Your task to perform on an android device: Go to Android settings Image 0: 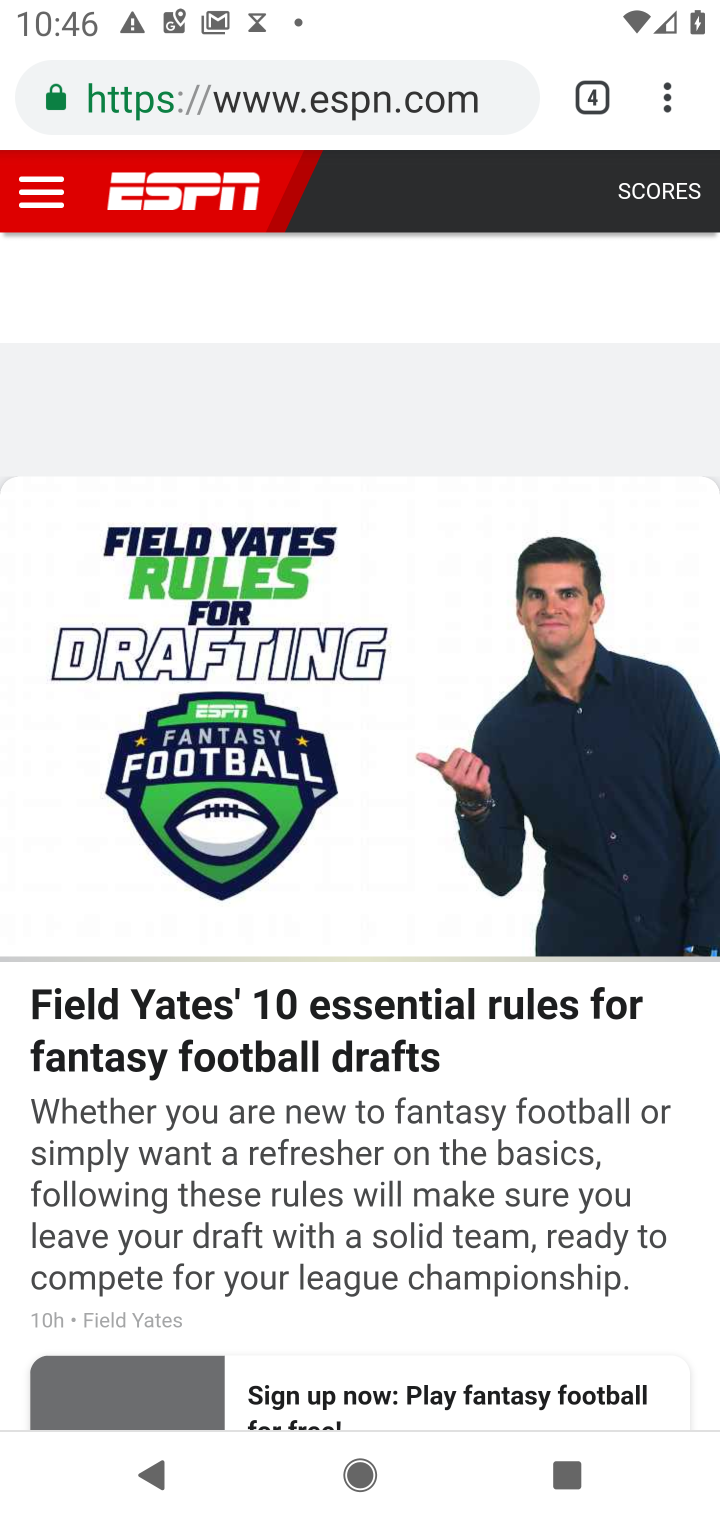
Step 0: press home button
Your task to perform on an android device: Go to Android settings Image 1: 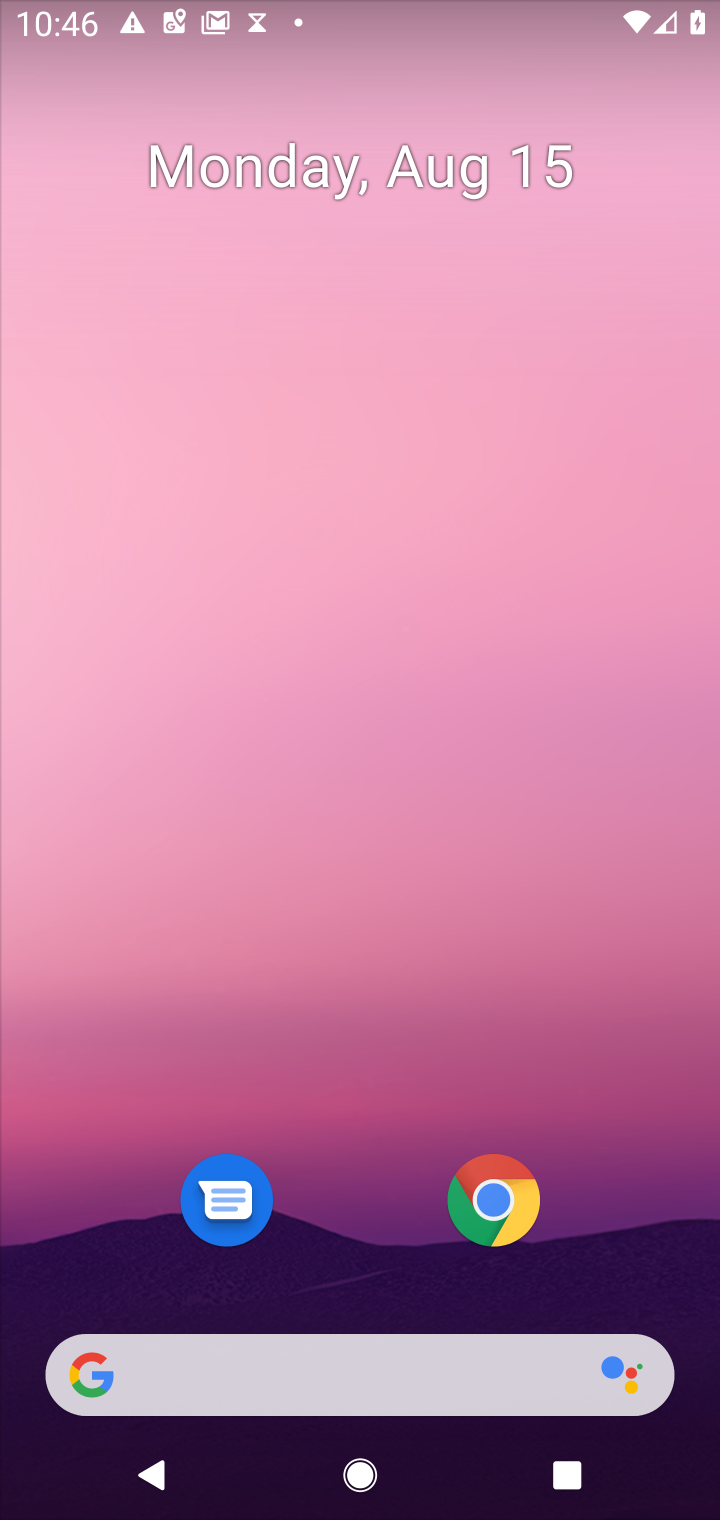
Step 1: drag from (324, 1025) to (335, 317)
Your task to perform on an android device: Go to Android settings Image 2: 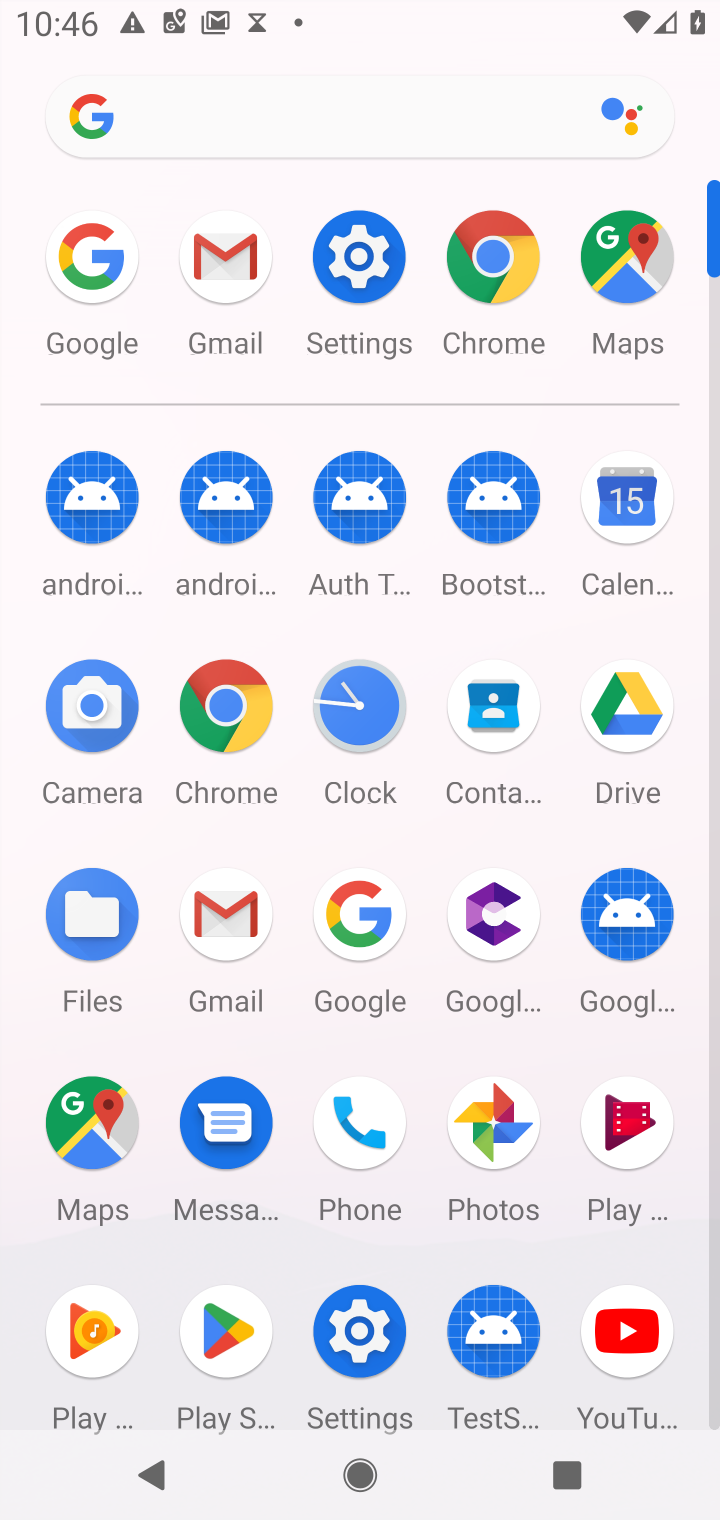
Step 2: click (377, 287)
Your task to perform on an android device: Go to Android settings Image 3: 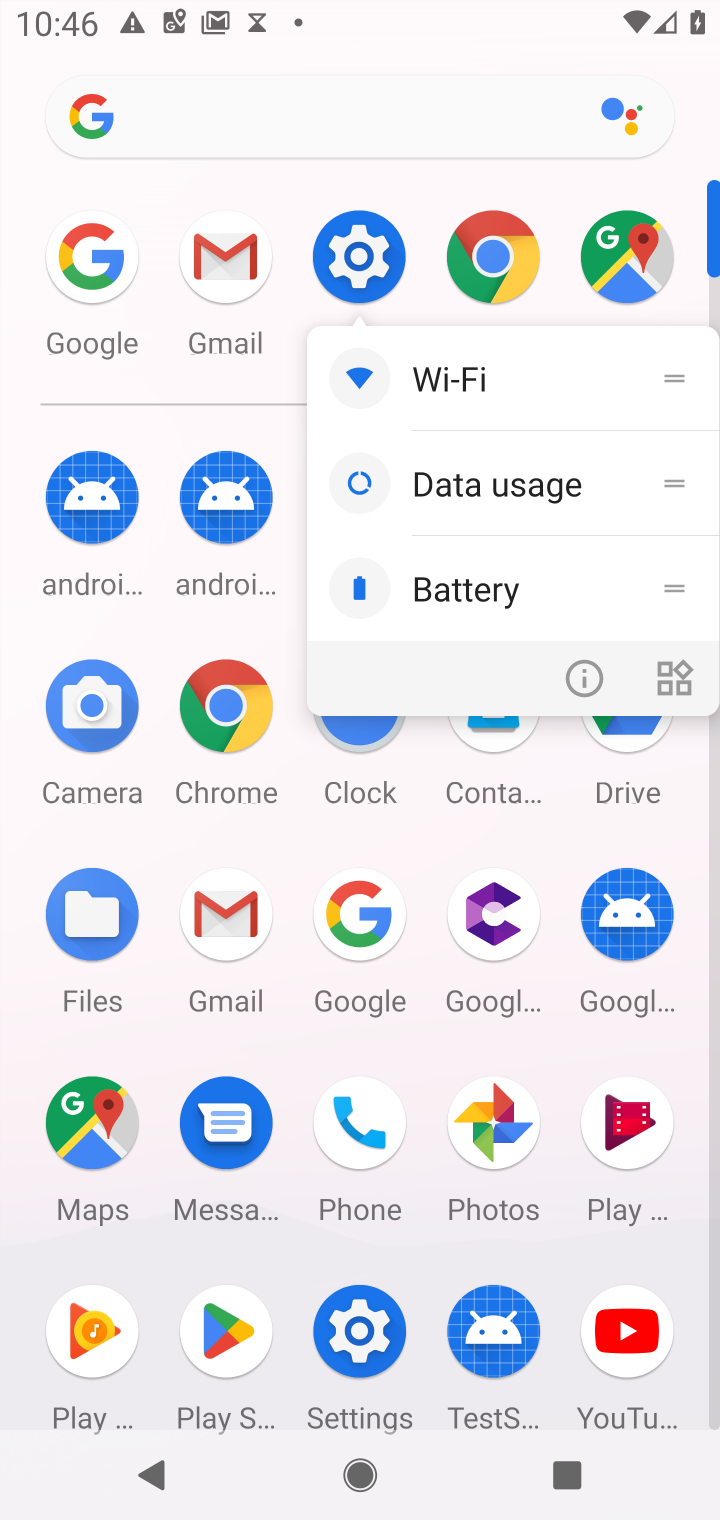
Step 3: click (377, 287)
Your task to perform on an android device: Go to Android settings Image 4: 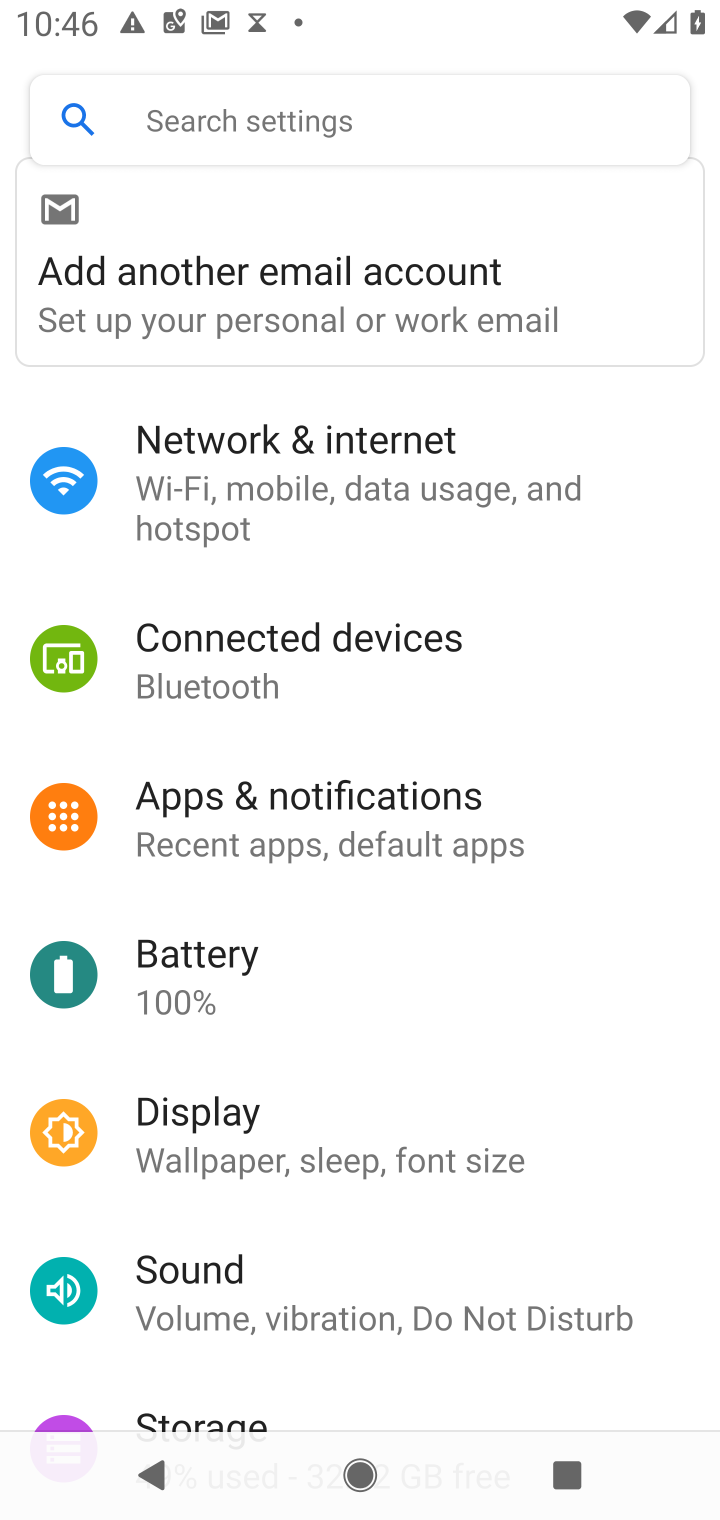
Step 4: task complete